Your task to perform on an android device: turn vacation reply on in the gmail app Image 0: 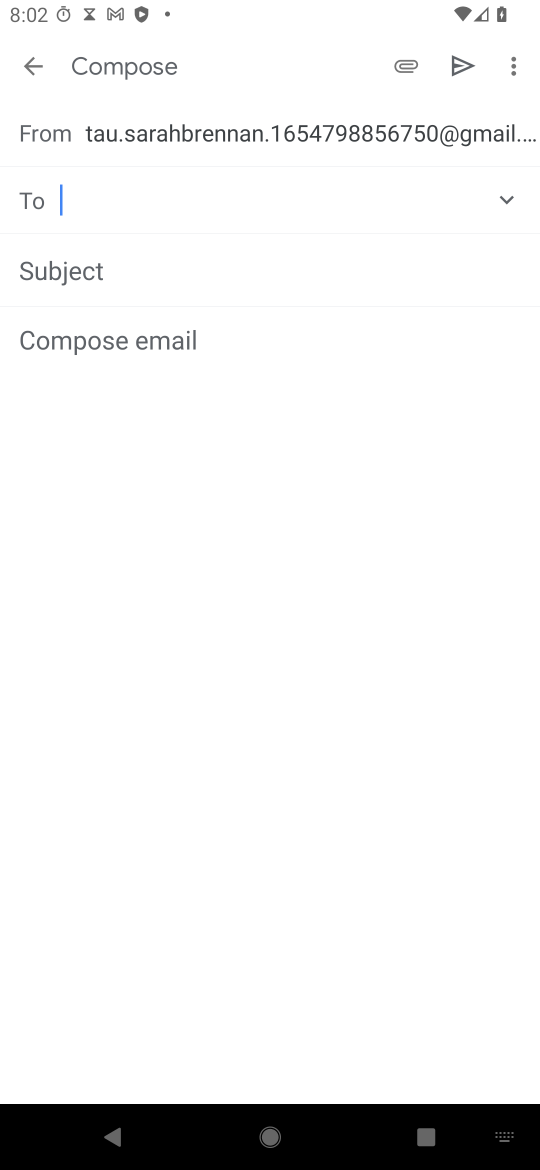
Step 0: press home button
Your task to perform on an android device: turn vacation reply on in the gmail app Image 1: 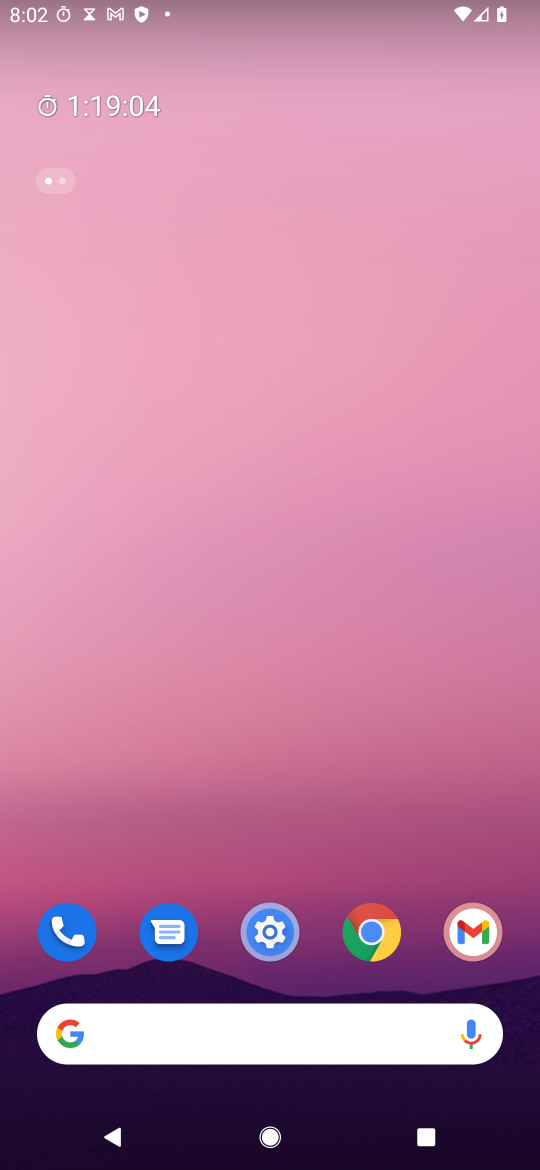
Step 1: drag from (397, 950) to (359, 121)
Your task to perform on an android device: turn vacation reply on in the gmail app Image 2: 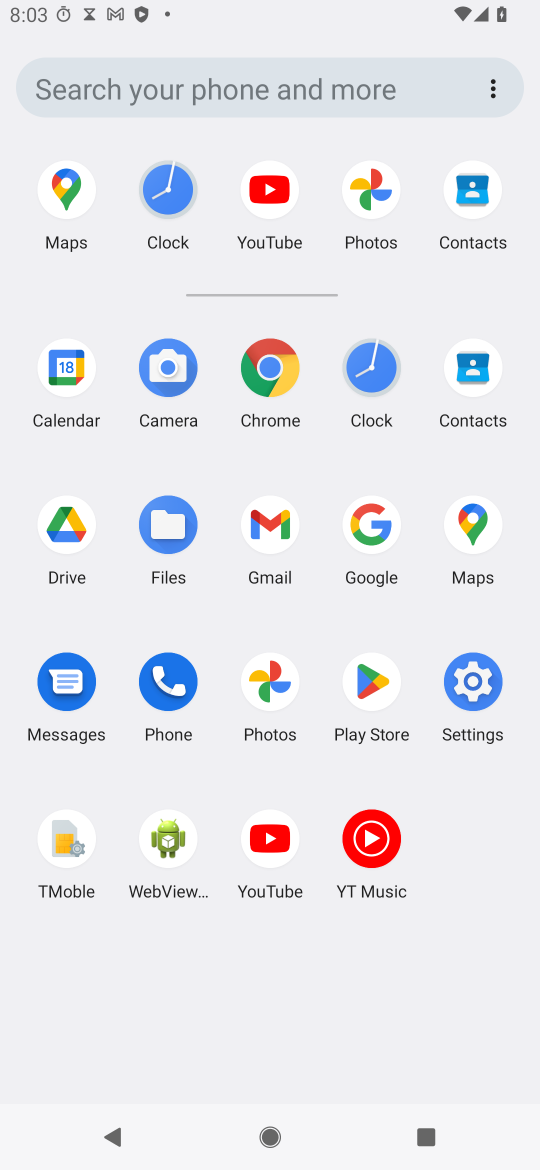
Step 2: click (271, 526)
Your task to perform on an android device: turn vacation reply on in the gmail app Image 3: 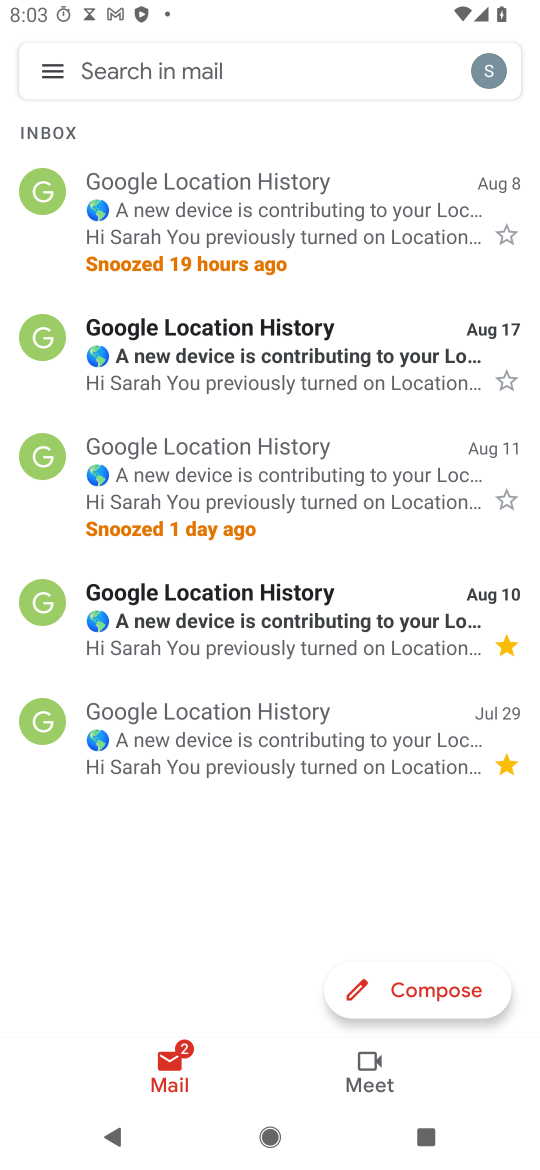
Step 3: click (50, 71)
Your task to perform on an android device: turn vacation reply on in the gmail app Image 4: 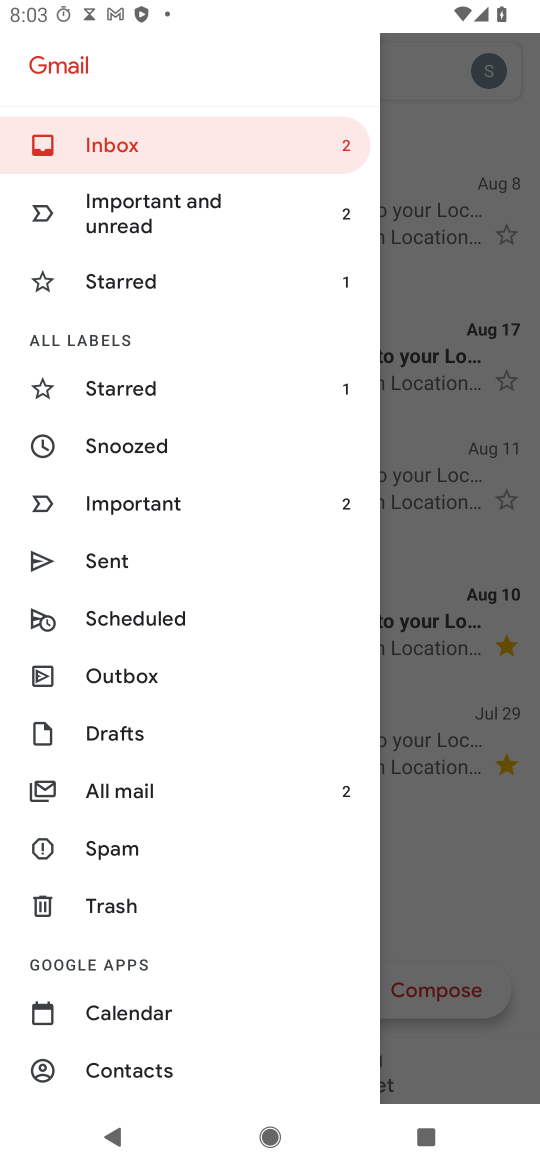
Step 4: drag from (222, 932) to (210, 225)
Your task to perform on an android device: turn vacation reply on in the gmail app Image 5: 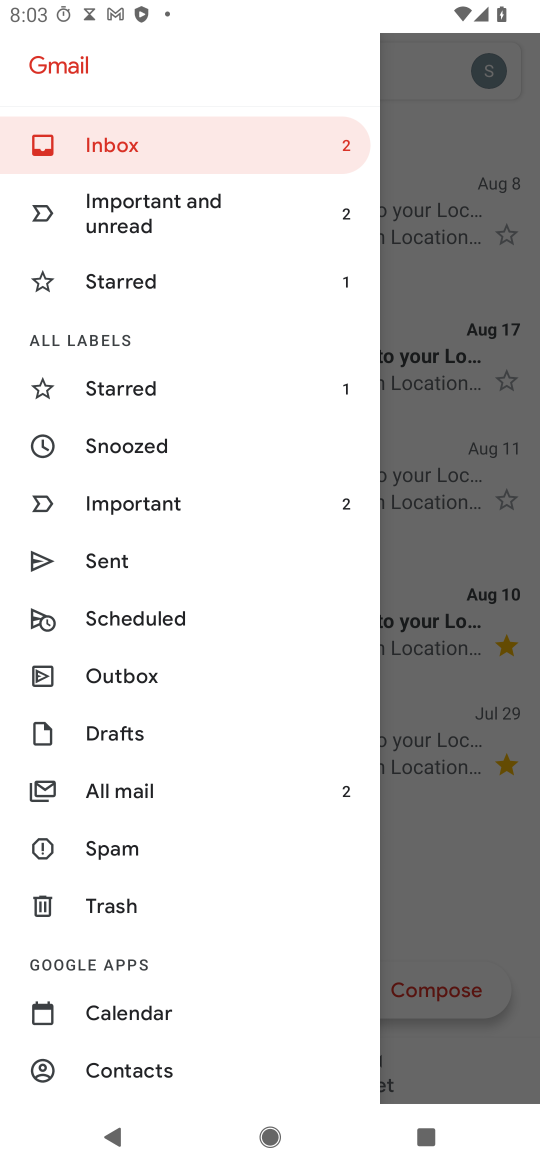
Step 5: drag from (200, 1032) to (215, 184)
Your task to perform on an android device: turn vacation reply on in the gmail app Image 6: 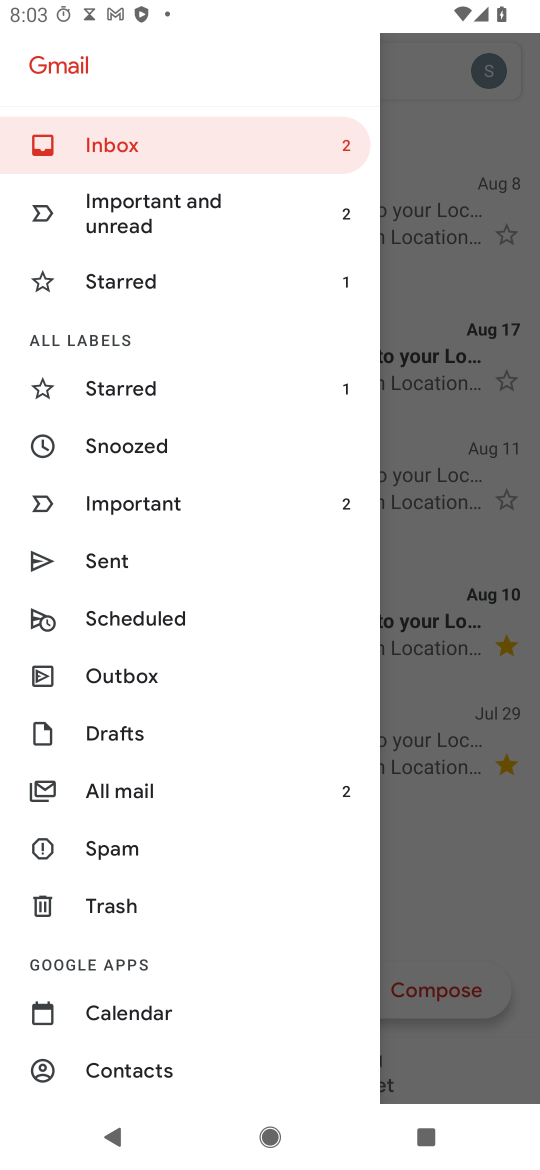
Step 6: drag from (129, 752) to (139, 109)
Your task to perform on an android device: turn vacation reply on in the gmail app Image 7: 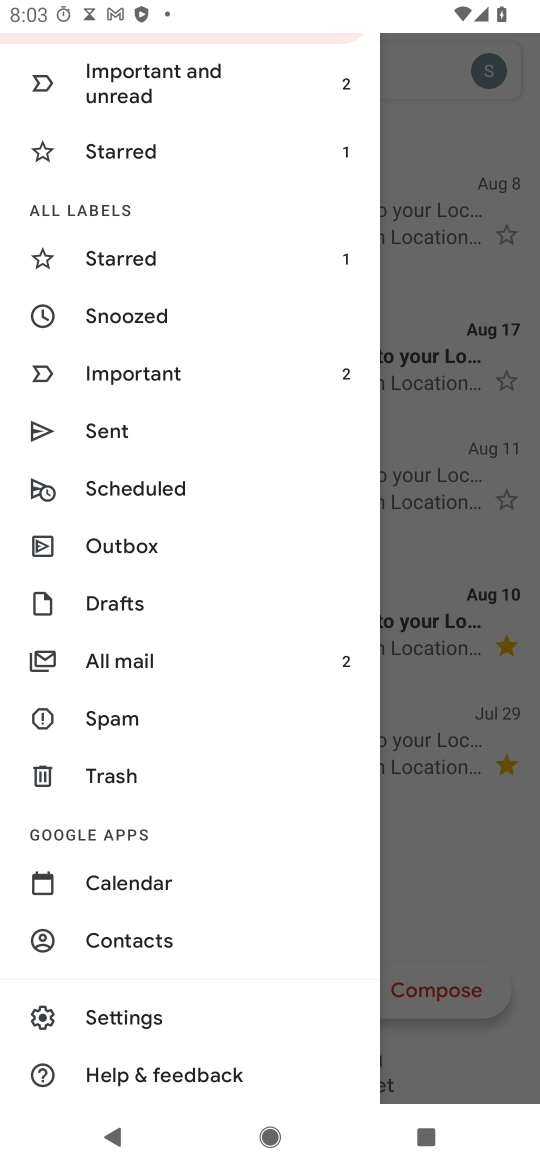
Step 7: click (142, 1014)
Your task to perform on an android device: turn vacation reply on in the gmail app Image 8: 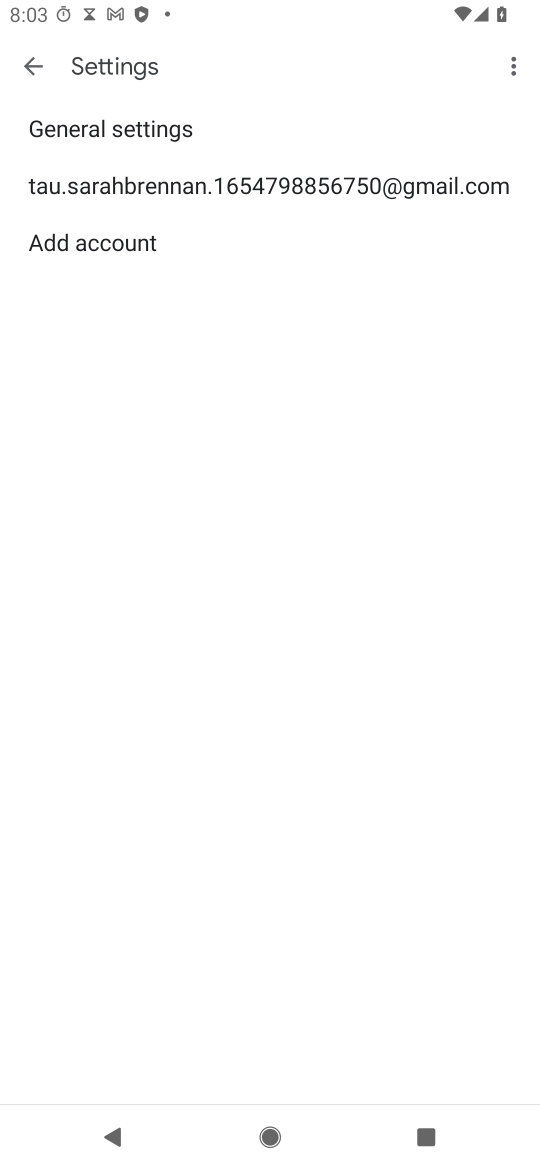
Step 8: click (389, 180)
Your task to perform on an android device: turn vacation reply on in the gmail app Image 9: 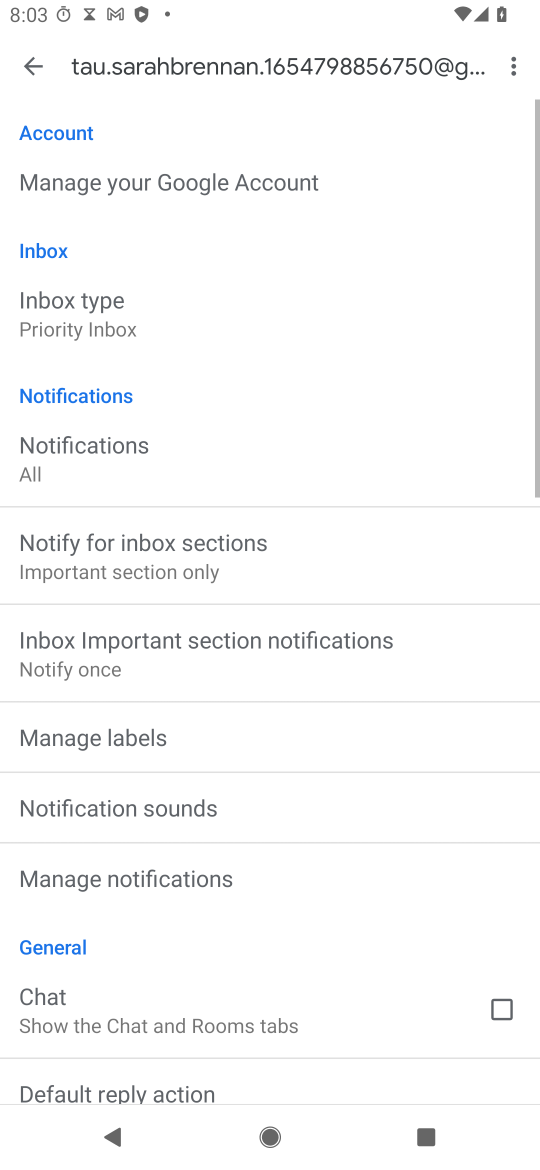
Step 9: drag from (225, 875) to (280, 254)
Your task to perform on an android device: turn vacation reply on in the gmail app Image 10: 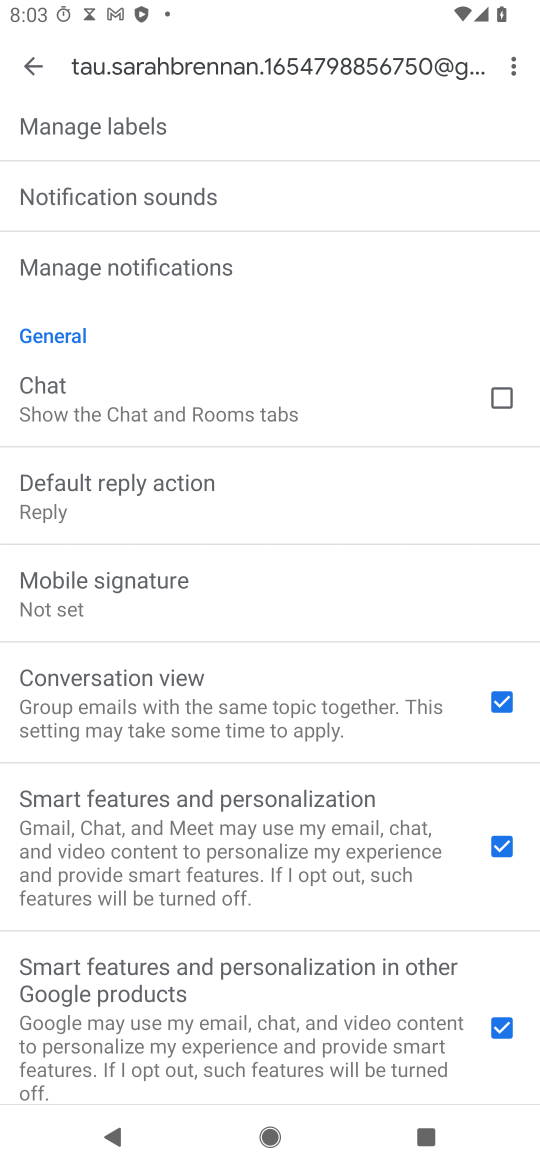
Step 10: drag from (275, 902) to (268, 258)
Your task to perform on an android device: turn vacation reply on in the gmail app Image 11: 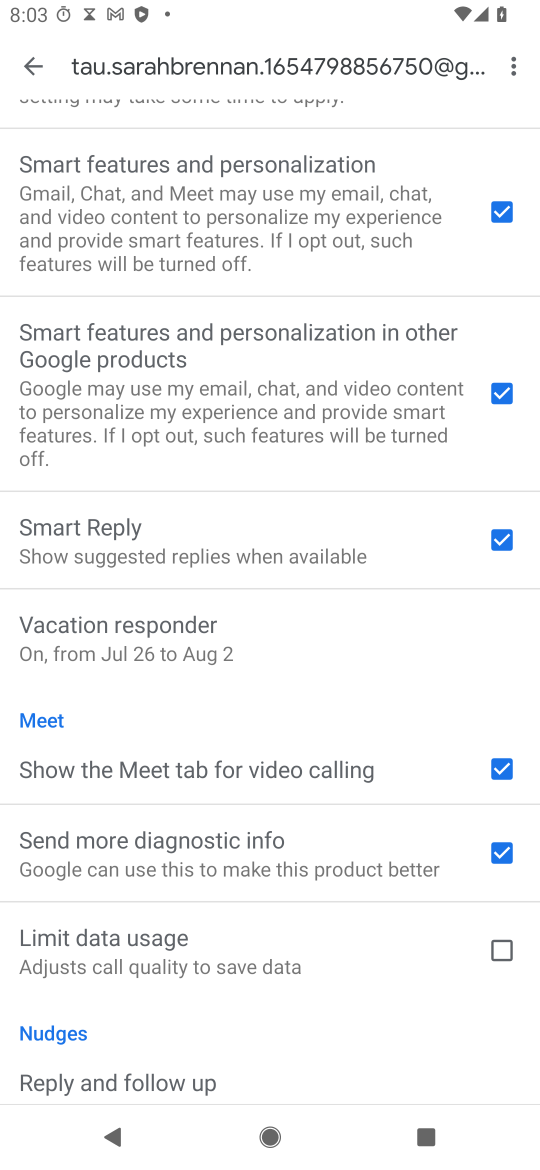
Step 11: click (177, 633)
Your task to perform on an android device: turn vacation reply on in the gmail app Image 12: 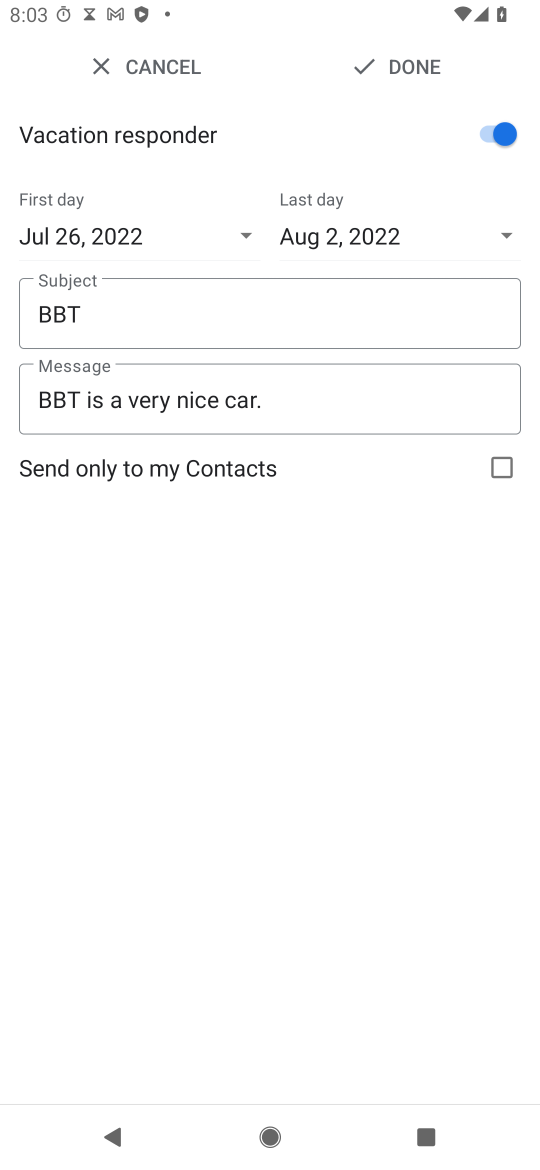
Step 12: click (370, 58)
Your task to perform on an android device: turn vacation reply on in the gmail app Image 13: 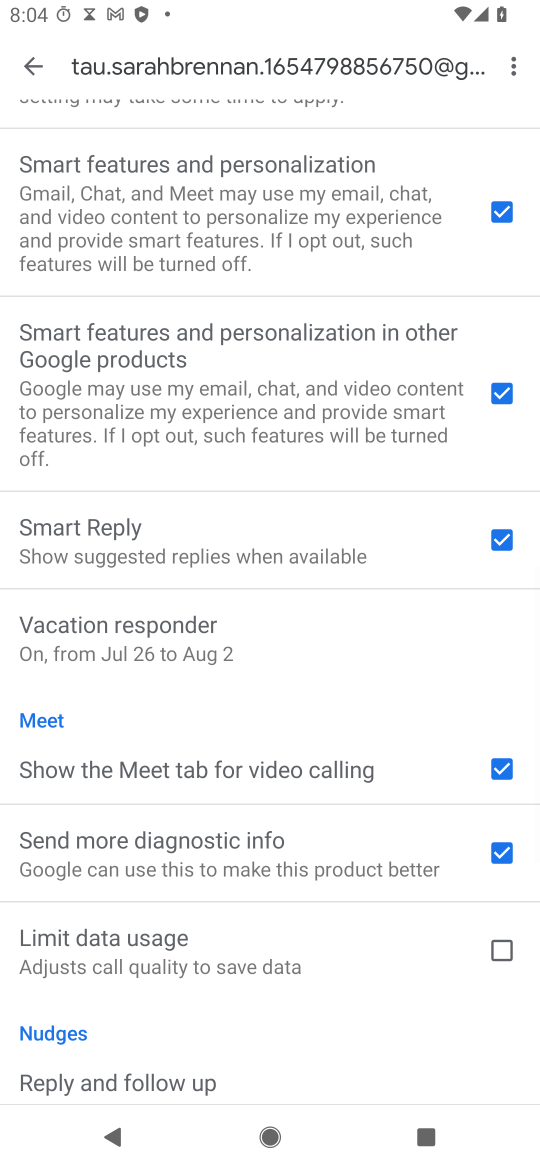
Step 13: task complete